Your task to perform on an android device: install app "Microsoft Outlook" Image 0: 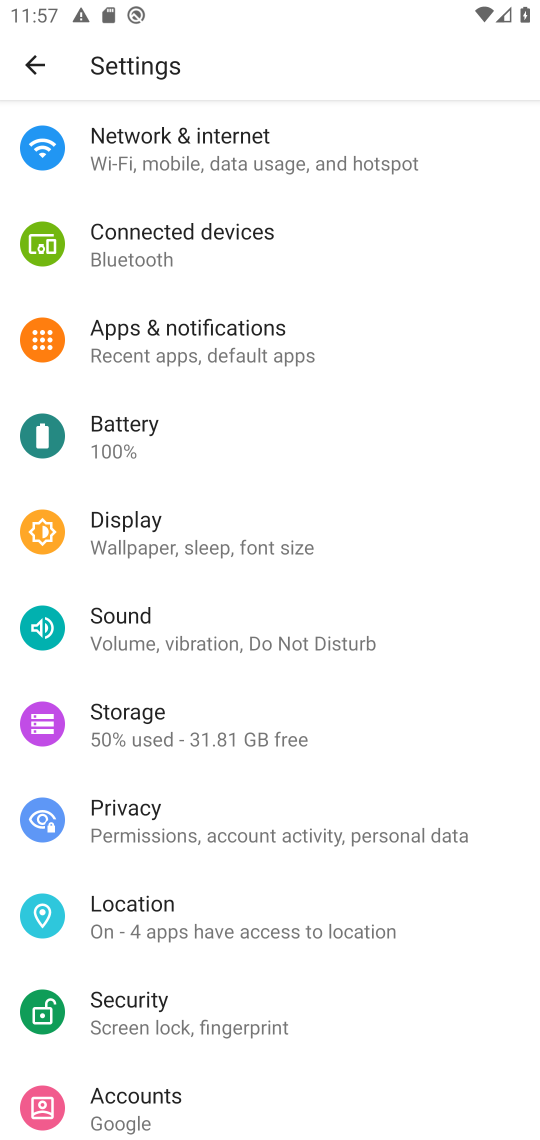
Step 0: press home button
Your task to perform on an android device: install app "Microsoft Outlook" Image 1: 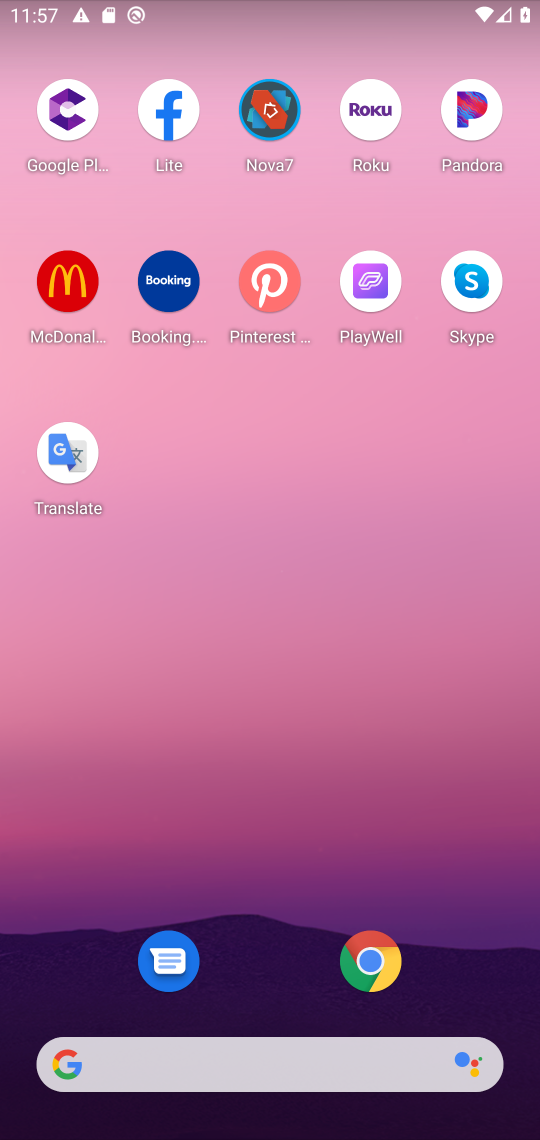
Step 1: drag from (467, 1004) to (469, 75)
Your task to perform on an android device: install app "Microsoft Outlook" Image 2: 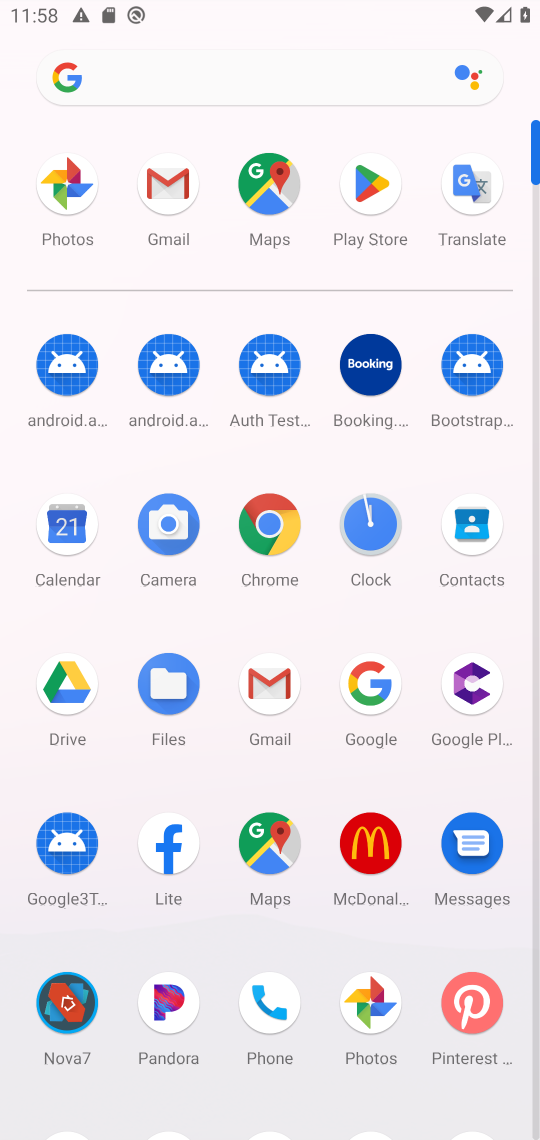
Step 2: click (368, 180)
Your task to perform on an android device: install app "Microsoft Outlook" Image 3: 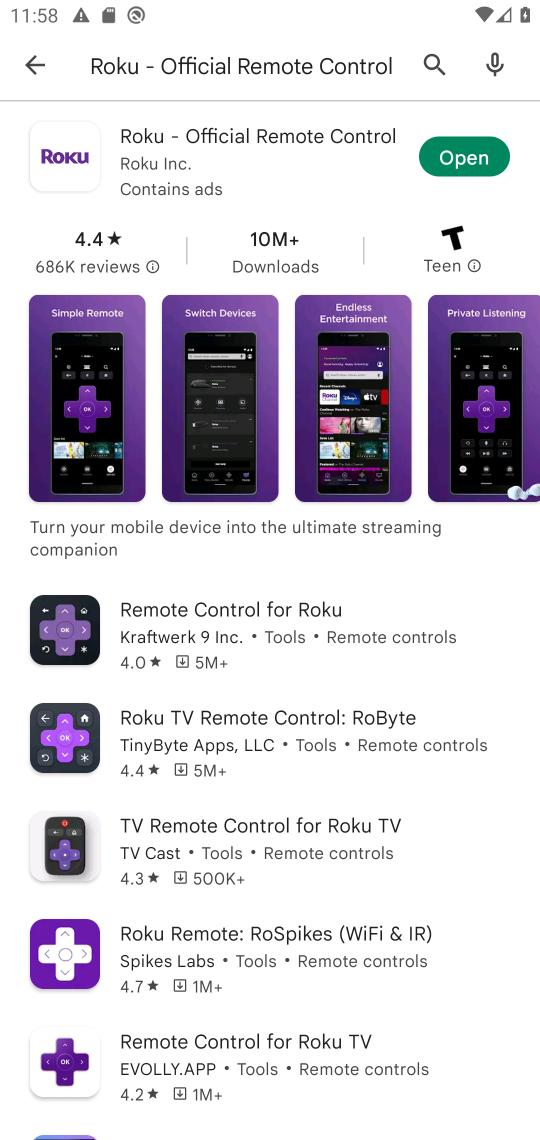
Step 3: press back button
Your task to perform on an android device: install app "Microsoft Outlook" Image 4: 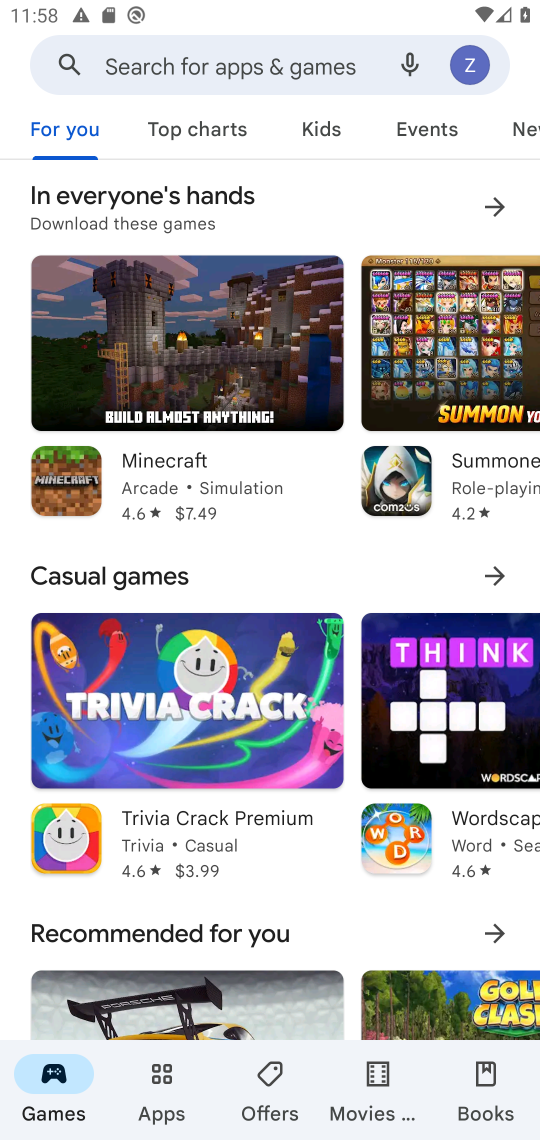
Step 4: click (225, 59)
Your task to perform on an android device: install app "Microsoft Outlook" Image 5: 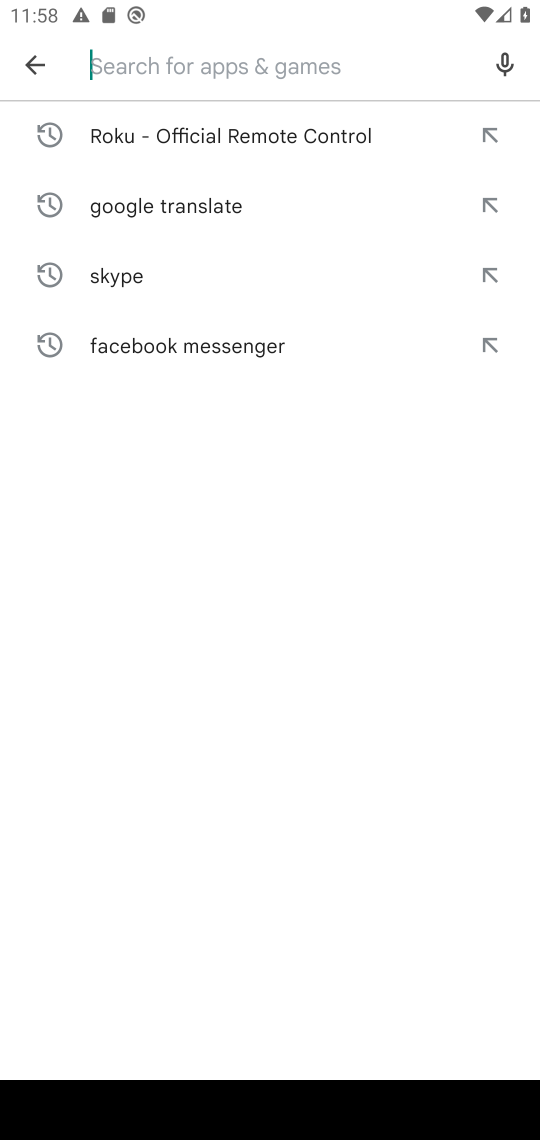
Step 5: type "Microsoft Outlook"
Your task to perform on an android device: install app "Microsoft Outlook" Image 6: 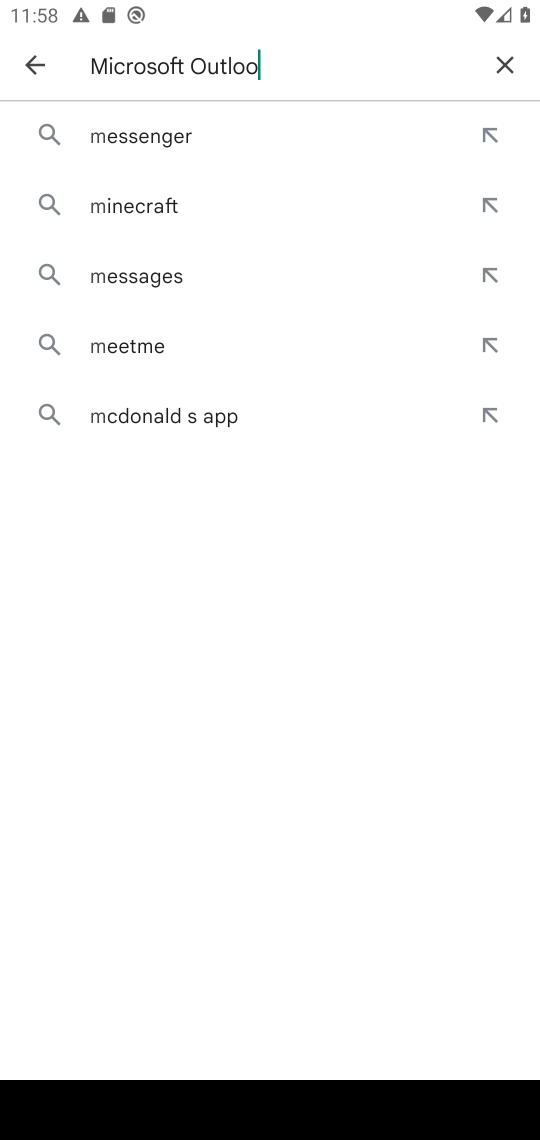
Step 6: press enter
Your task to perform on an android device: install app "Microsoft Outlook" Image 7: 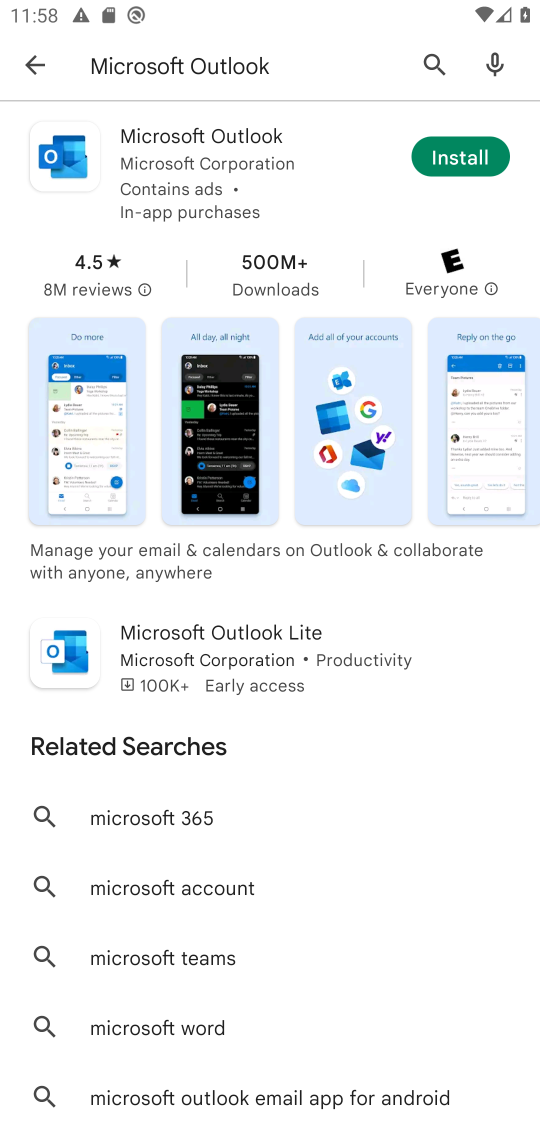
Step 7: click (456, 160)
Your task to perform on an android device: install app "Microsoft Outlook" Image 8: 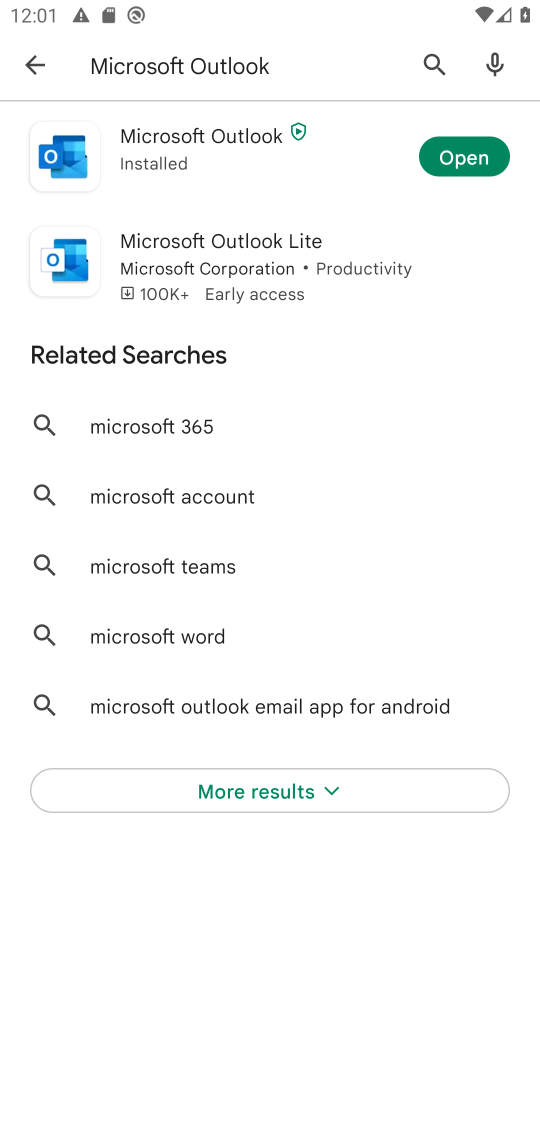
Step 8: task complete